Your task to perform on an android device: turn notification dots on Image 0: 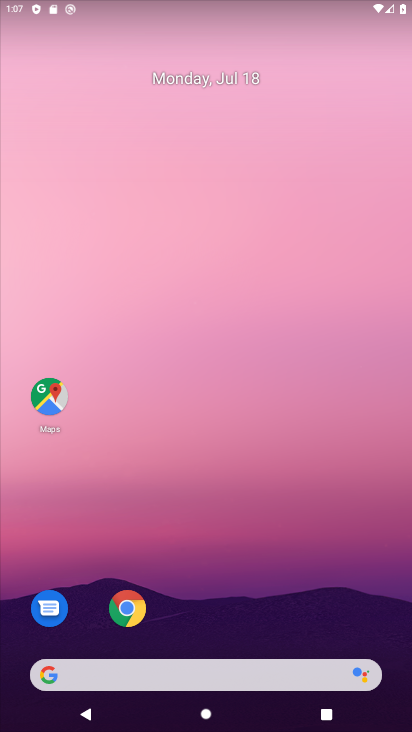
Step 0: drag from (384, 636) to (314, 315)
Your task to perform on an android device: turn notification dots on Image 1: 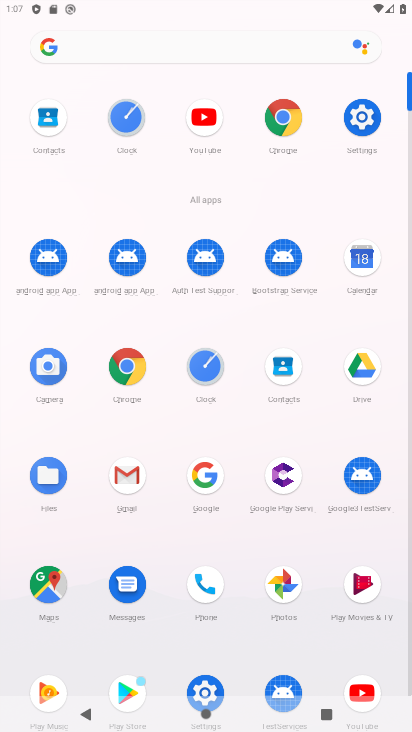
Step 1: click (364, 124)
Your task to perform on an android device: turn notification dots on Image 2: 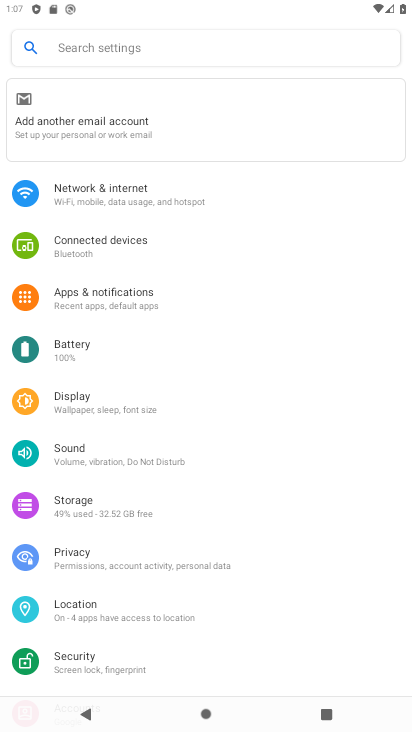
Step 2: click (267, 304)
Your task to perform on an android device: turn notification dots on Image 3: 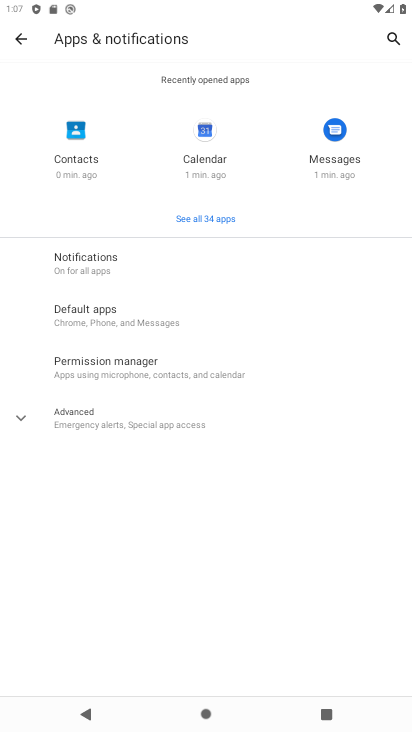
Step 3: click (206, 270)
Your task to perform on an android device: turn notification dots on Image 4: 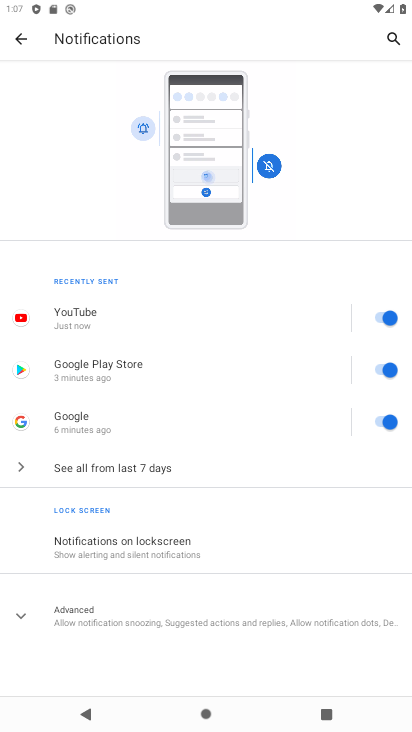
Step 4: click (319, 622)
Your task to perform on an android device: turn notification dots on Image 5: 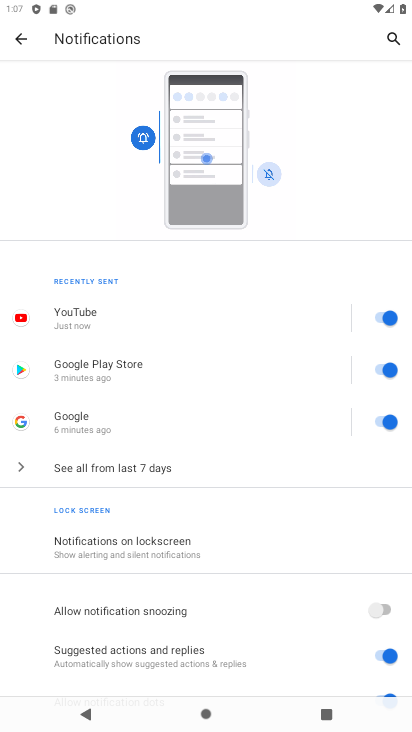
Step 5: task complete